Your task to perform on an android device: What's on my calendar tomorrow? Image 0: 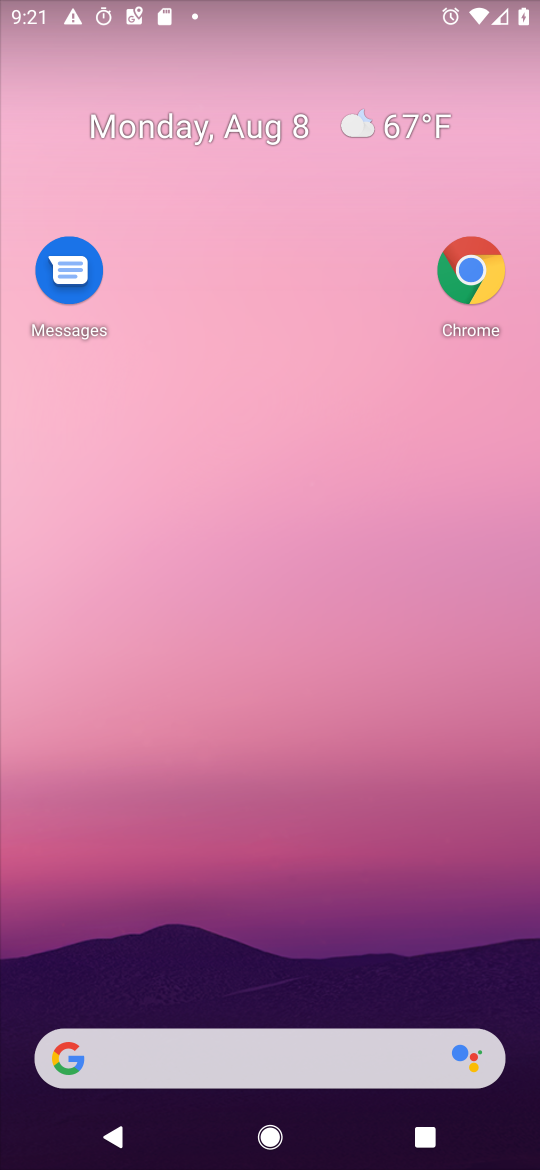
Step 0: click (313, 304)
Your task to perform on an android device: What's on my calendar tomorrow? Image 1: 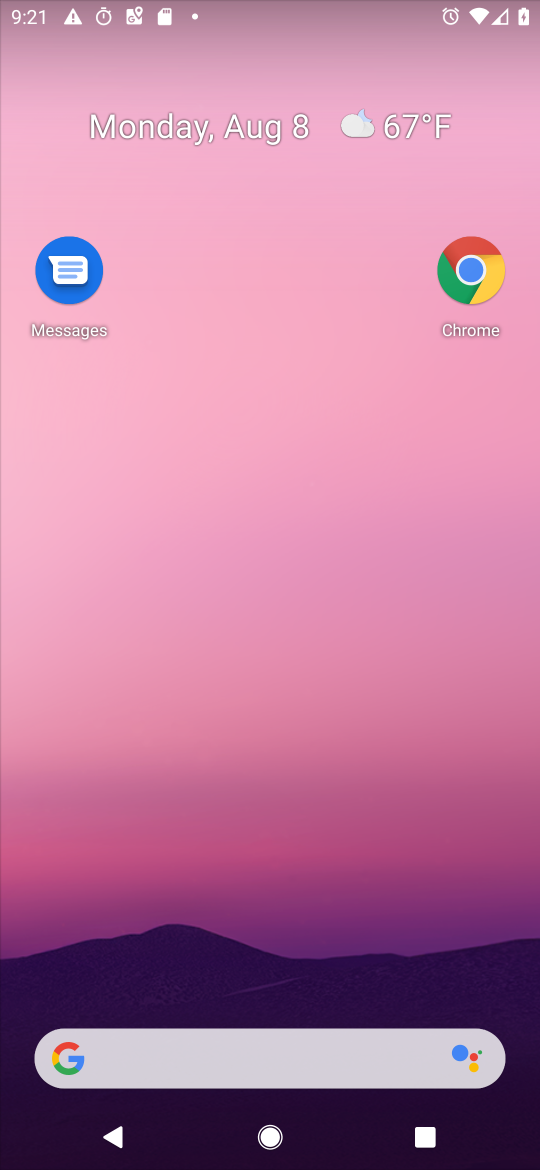
Step 1: drag from (310, 933) to (289, 9)
Your task to perform on an android device: What's on my calendar tomorrow? Image 2: 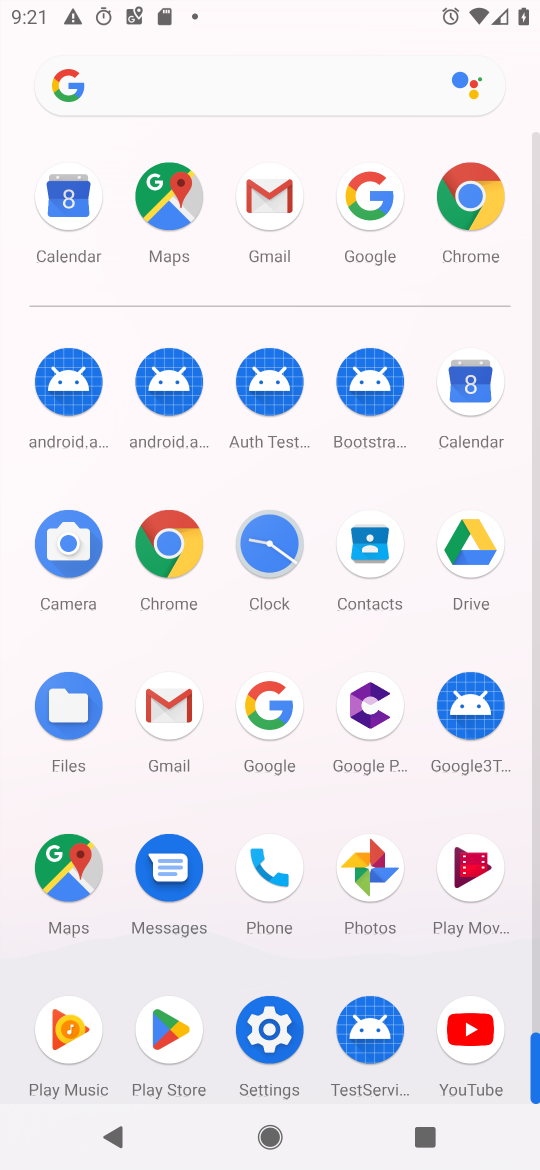
Step 2: drag from (303, 962) to (322, 375)
Your task to perform on an android device: What's on my calendar tomorrow? Image 3: 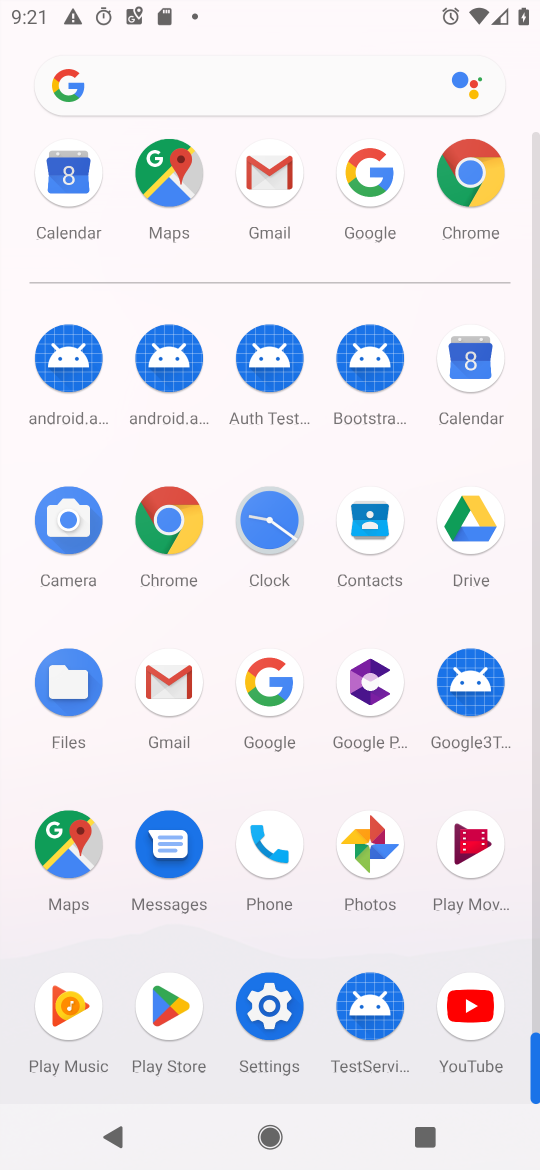
Step 3: click (475, 346)
Your task to perform on an android device: What's on my calendar tomorrow? Image 4: 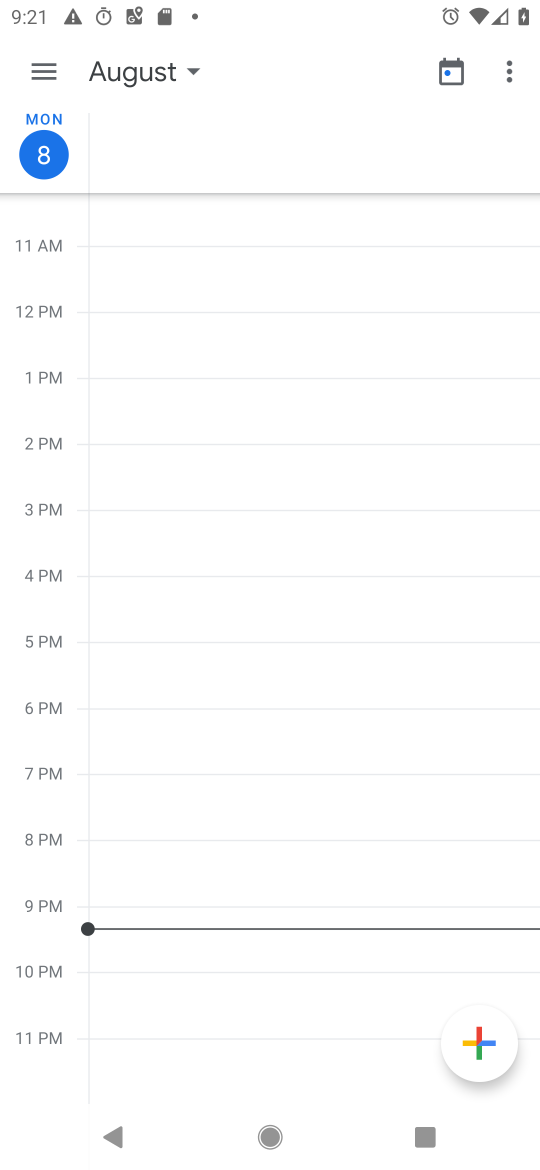
Step 4: click (188, 64)
Your task to perform on an android device: What's on my calendar tomorrow? Image 5: 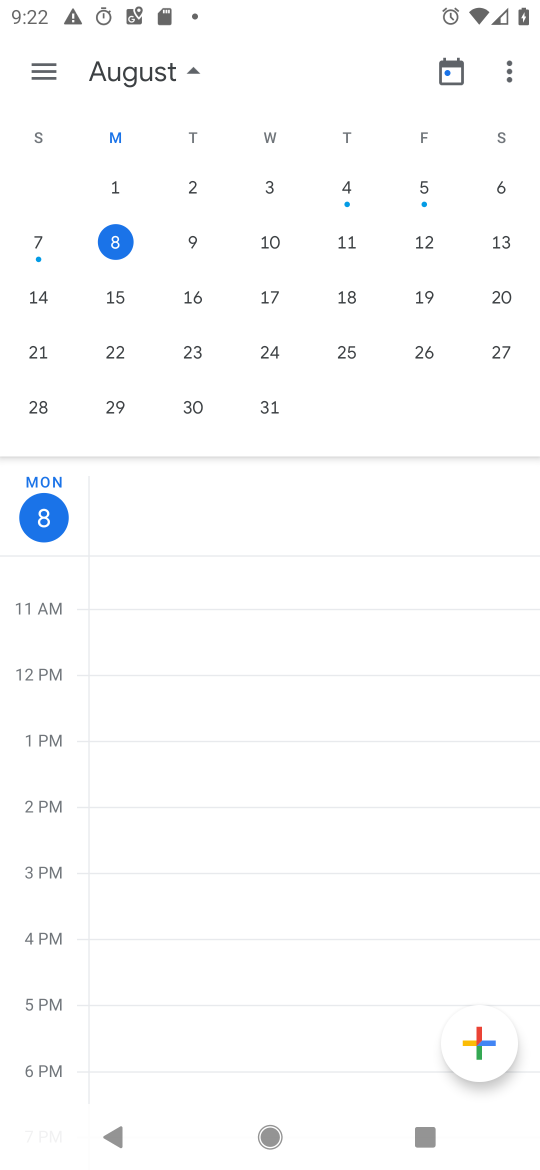
Step 5: click (459, 80)
Your task to perform on an android device: What's on my calendar tomorrow? Image 6: 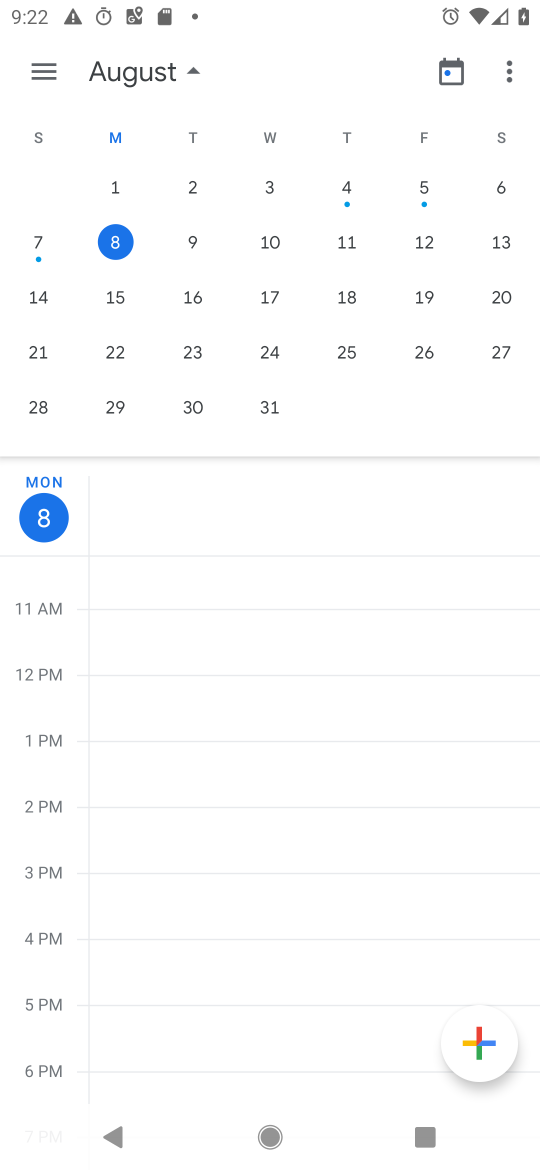
Step 6: click (187, 236)
Your task to perform on an android device: What's on my calendar tomorrow? Image 7: 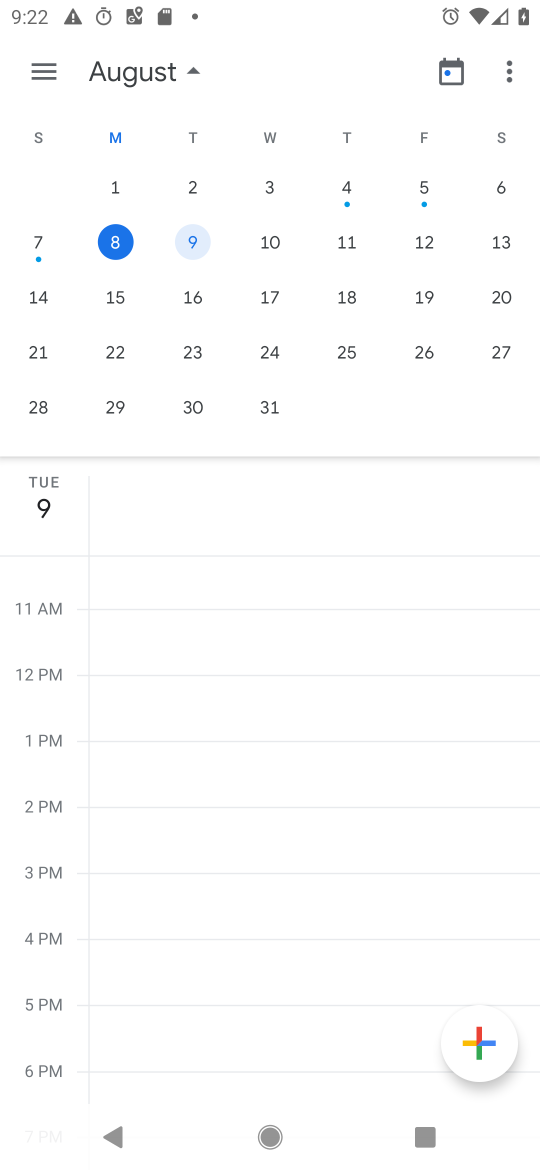
Step 7: task complete